Your task to perform on an android device: Open battery settings Image 0: 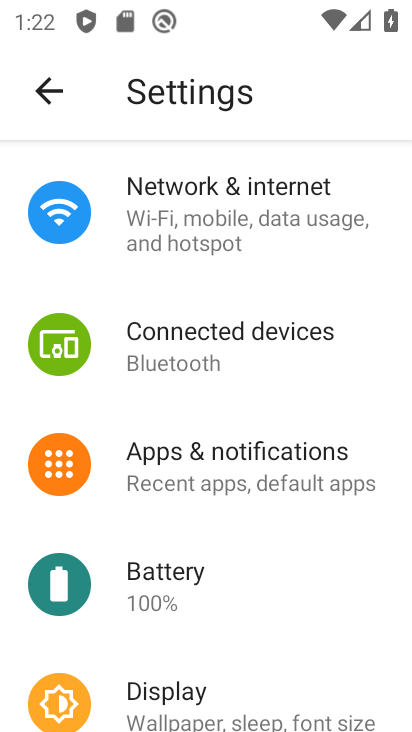
Step 0: click (151, 581)
Your task to perform on an android device: Open battery settings Image 1: 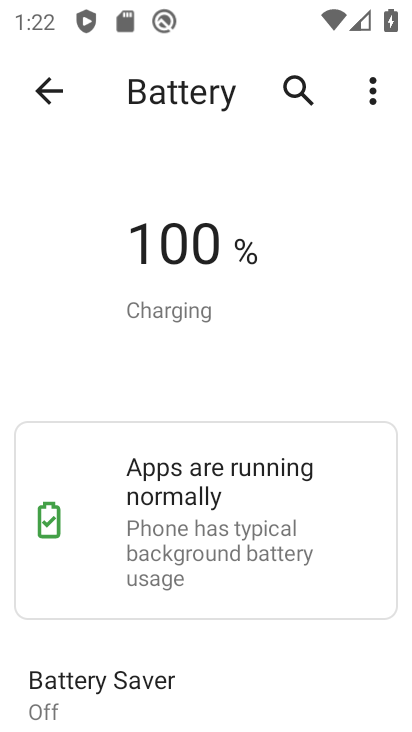
Step 1: task complete